Your task to perform on an android device: set an alarm Image 0: 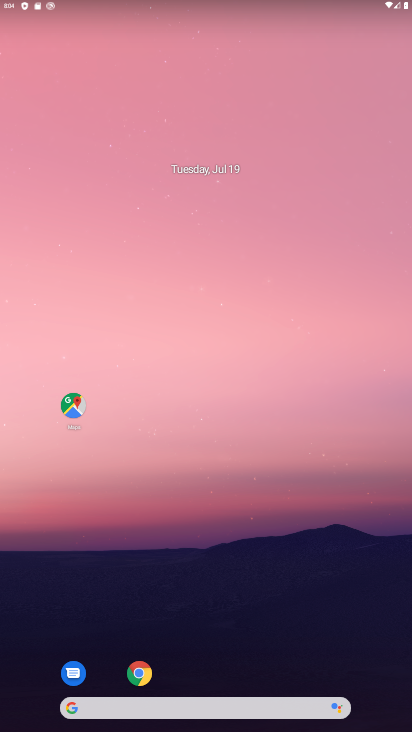
Step 0: drag from (302, 653) to (253, 219)
Your task to perform on an android device: set an alarm Image 1: 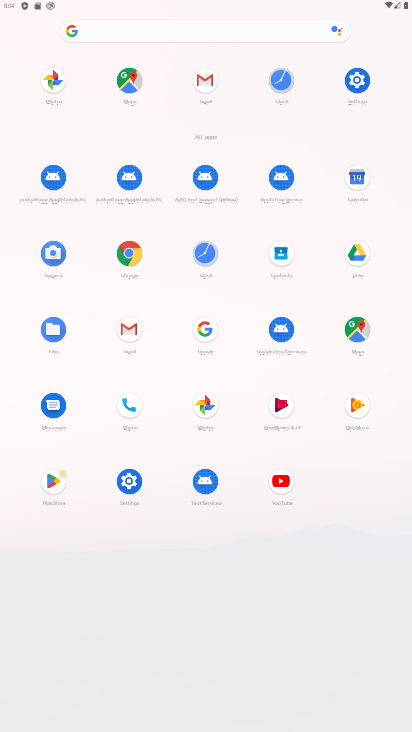
Step 1: click (197, 240)
Your task to perform on an android device: set an alarm Image 2: 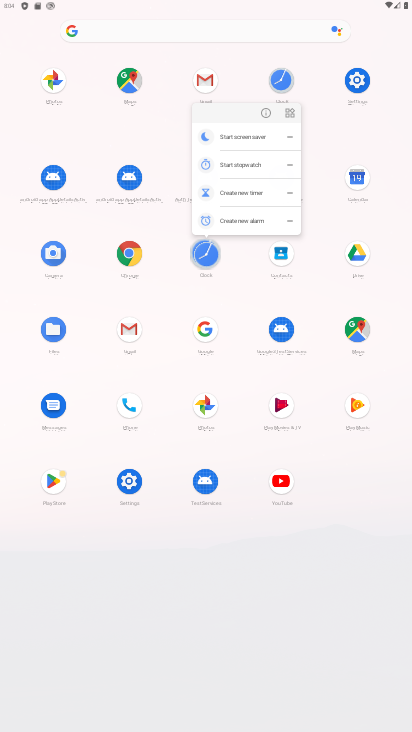
Step 2: click (204, 244)
Your task to perform on an android device: set an alarm Image 3: 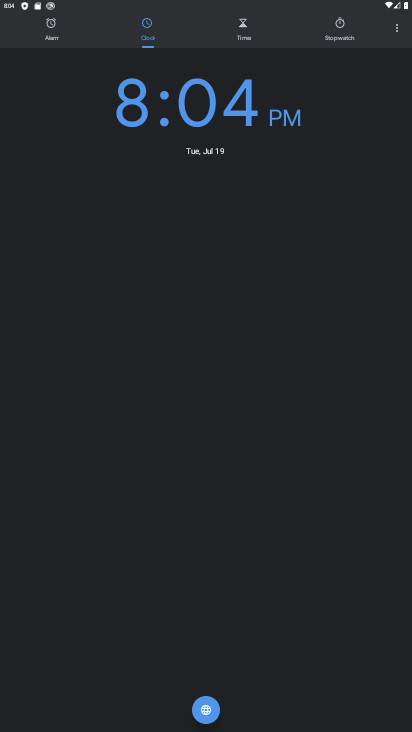
Step 3: click (60, 41)
Your task to perform on an android device: set an alarm Image 4: 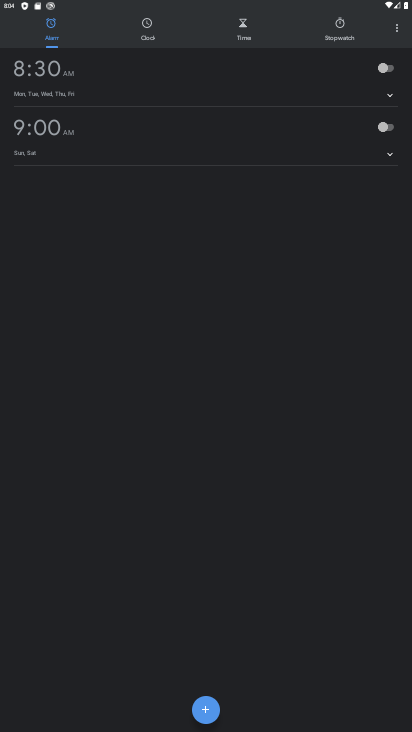
Step 4: click (383, 71)
Your task to perform on an android device: set an alarm Image 5: 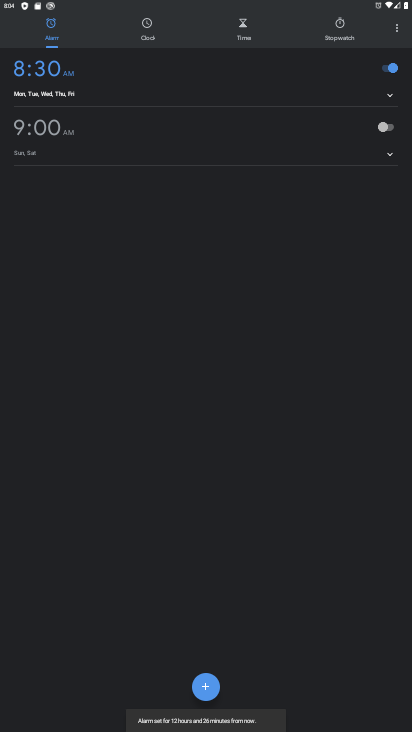
Step 5: task complete